Your task to perform on an android device: Open Google Maps and go to "Timeline" Image 0: 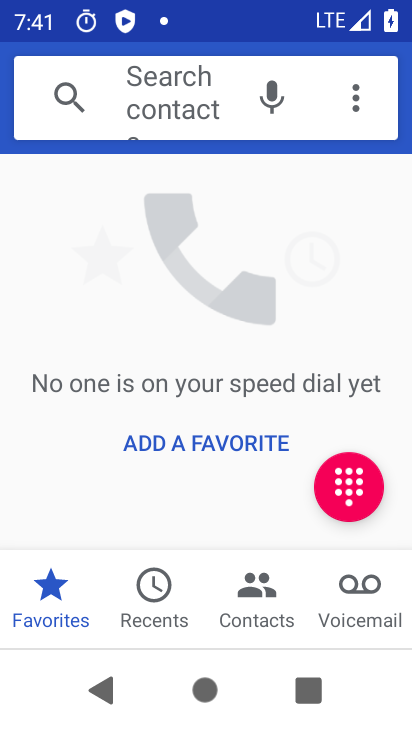
Step 0: press home button
Your task to perform on an android device: Open Google Maps and go to "Timeline" Image 1: 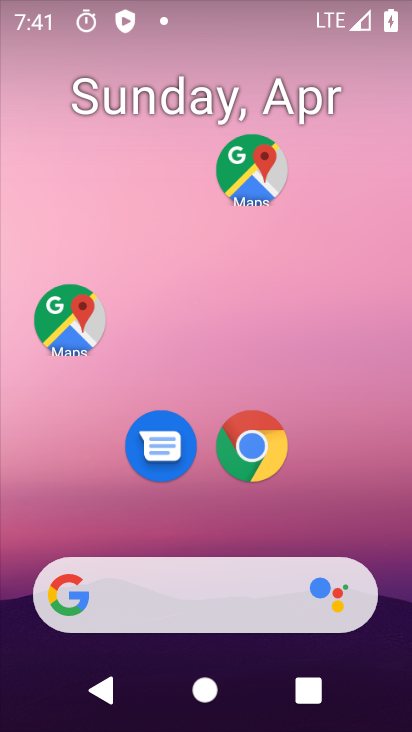
Step 1: drag from (225, 552) to (118, 15)
Your task to perform on an android device: Open Google Maps and go to "Timeline" Image 2: 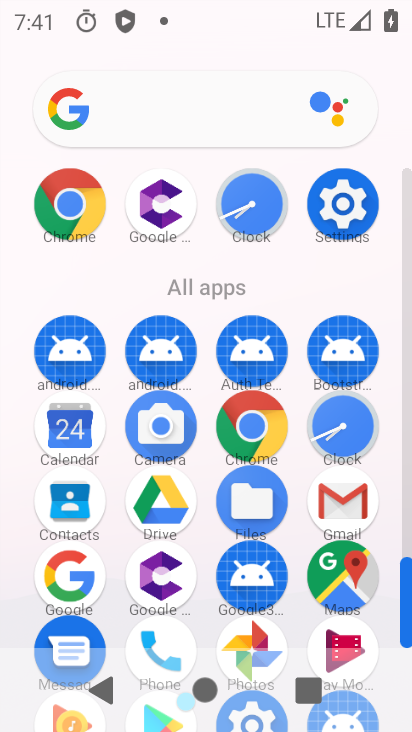
Step 2: click (350, 591)
Your task to perform on an android device: Open Google Maps and go to "Timeline" Image 3: 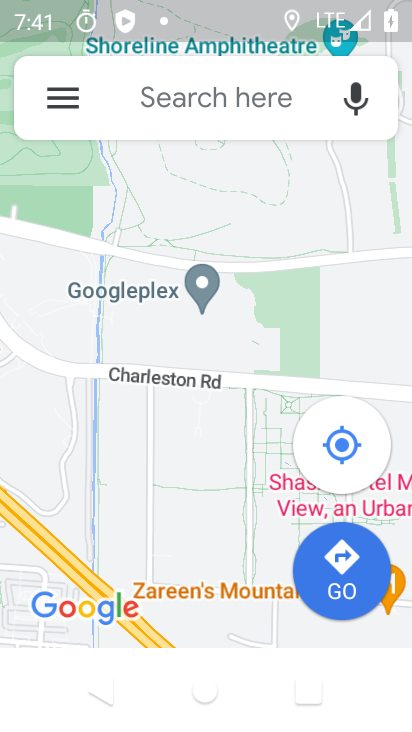
Step 3: click (64, 102)
Your task to perform on an android device: Open Google Maps and go to "Timeline" Image 4: 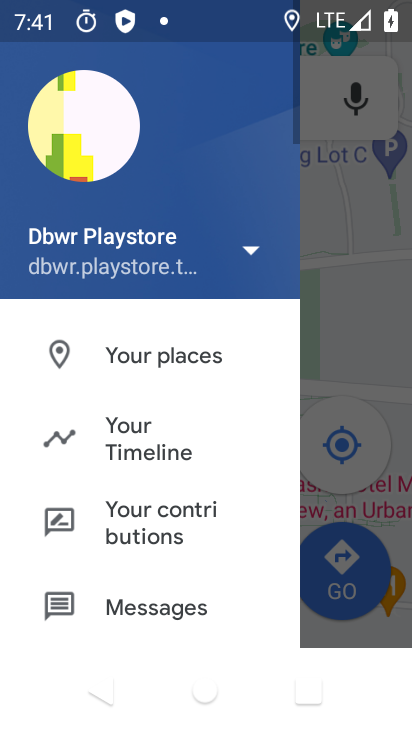
Step 4: click (106, 447)
Your task to perform on an android device: Open Google Maps and go to "Timeline" Image 5: 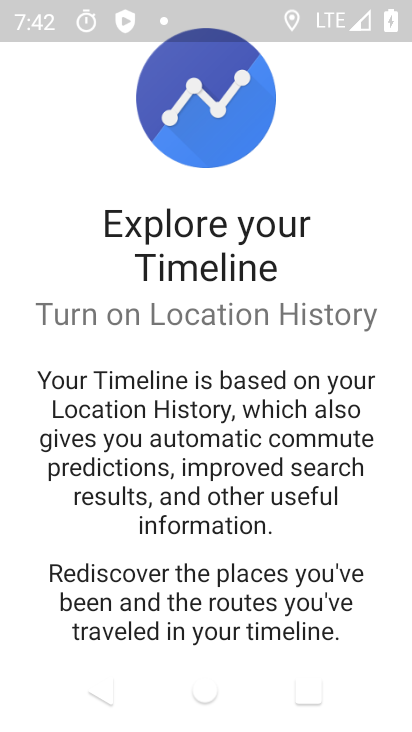
Step 5: drag from (263, 603) to (181, 32)
Your task to perform on an android device: Open Google Maps and go to "Timeline" Image 6: 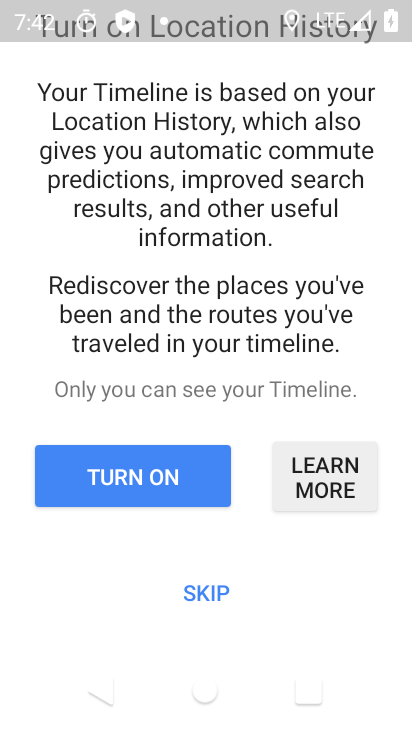
Step 6: click (197, 608)
Your task to perform on an android device: Open Google Maps and go to "Timeline" Image 7: 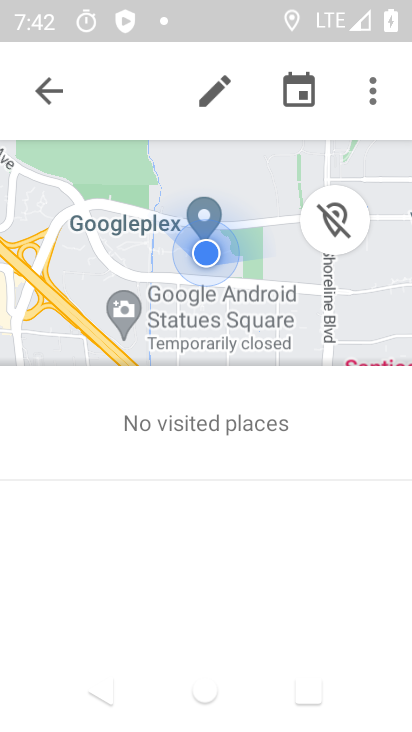
Step 7: task complete